Your task to perform on an android device: change notifications settings Image 0: 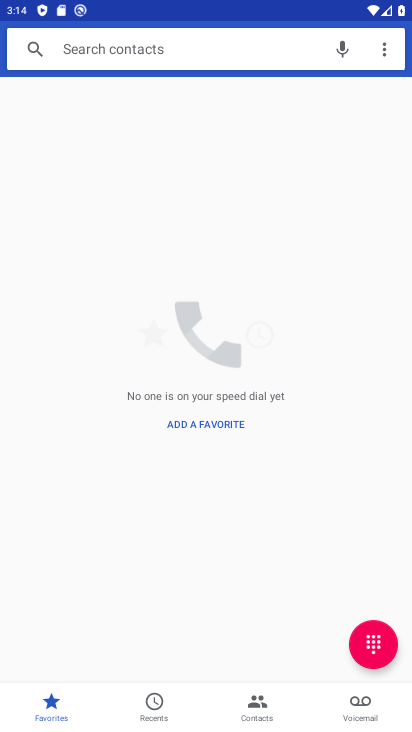
Step 0: press home button
Your task to perform on an android device: change notifications settings Image 1: 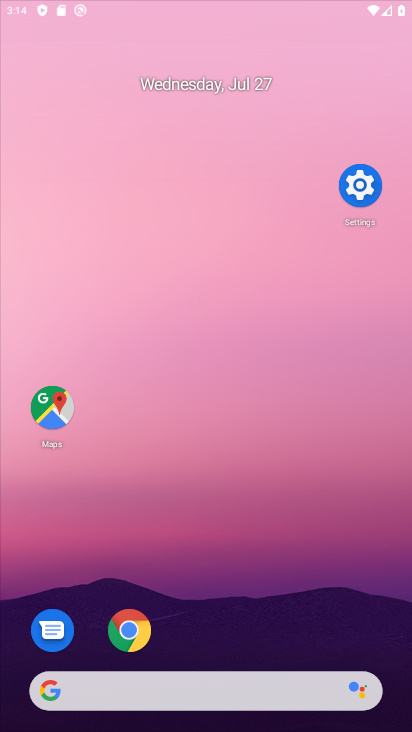
Step 1: drag from (237, 562) to (275, 7)
Your task to perform on an android device: change notifications settings Image 2: 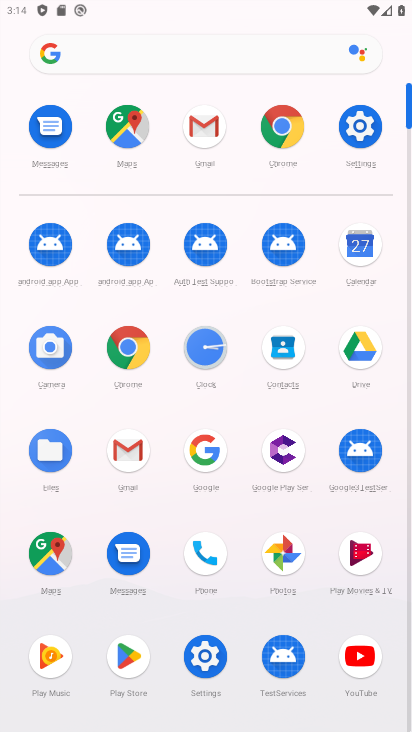
Step 2: click (372, 128)
Your task to perform on an android device: change notifications settings Image 3: 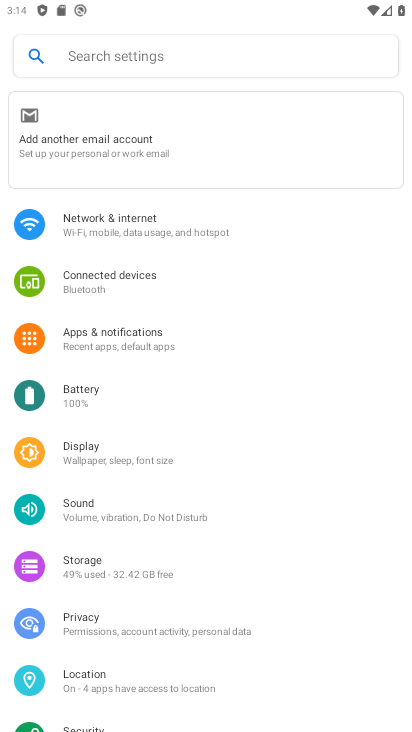
Step 3: click (130, 344)
Your task to perform on an android device: change notifications settings Image 4: 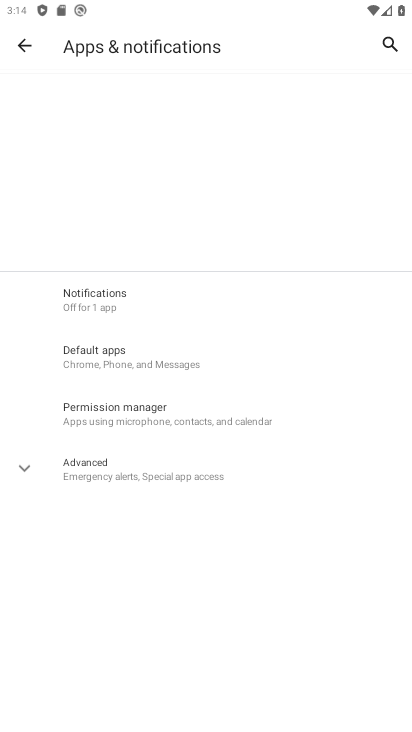
Step 4: click (117, 303)
Your task to perform on an android device: change notifications settings Image 5: 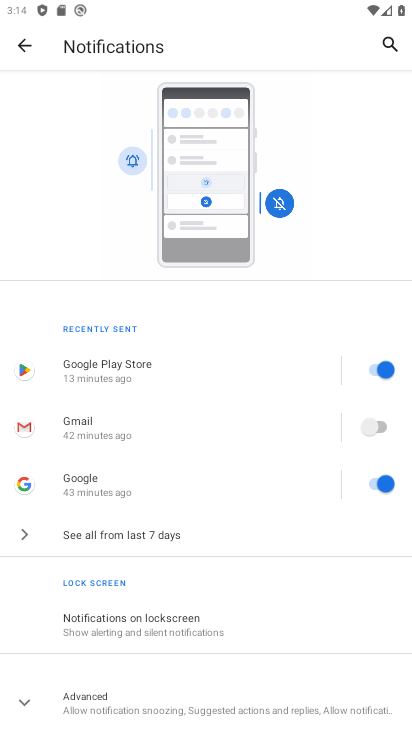
Step 5: click (286, 200)
Your task to perform on an android device: change notifications settings Image 6: 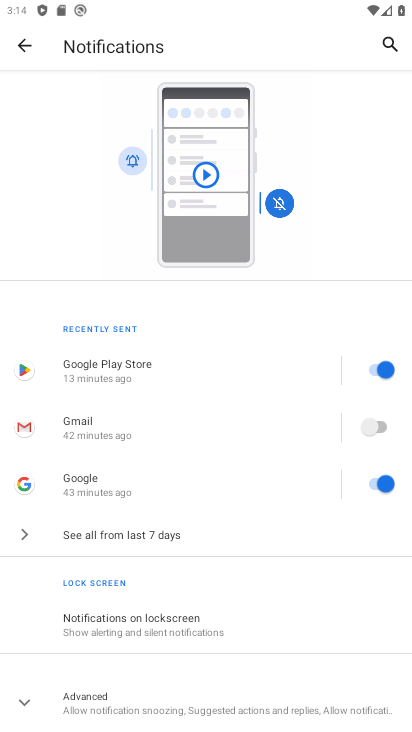
Step 6: task complete